Your task to perform on an android device: Open the stopwatch Image 0: 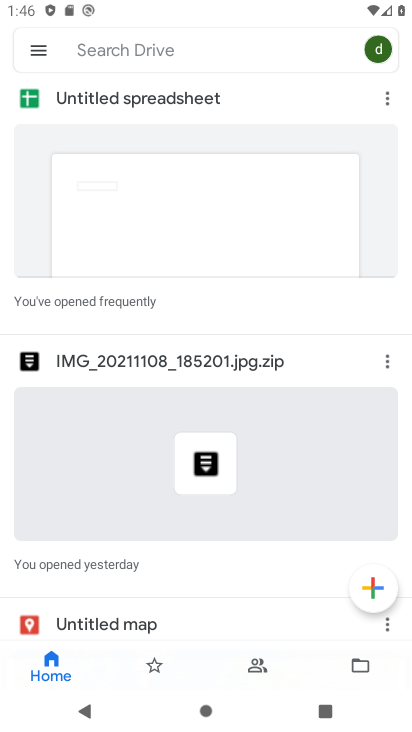
Step 0: press home button
Your task to perform on an android device: Open the stopwatch Image 1: 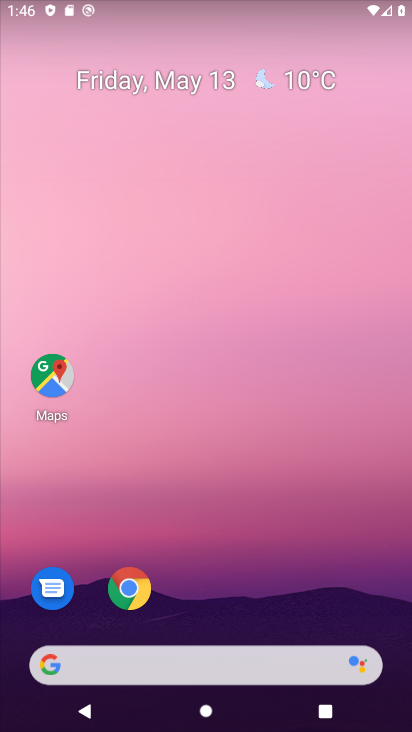
Step 1: drag from (203, 166) to (217, 78)
Your task to perform on an android device: Open the stopwatch Image 2: 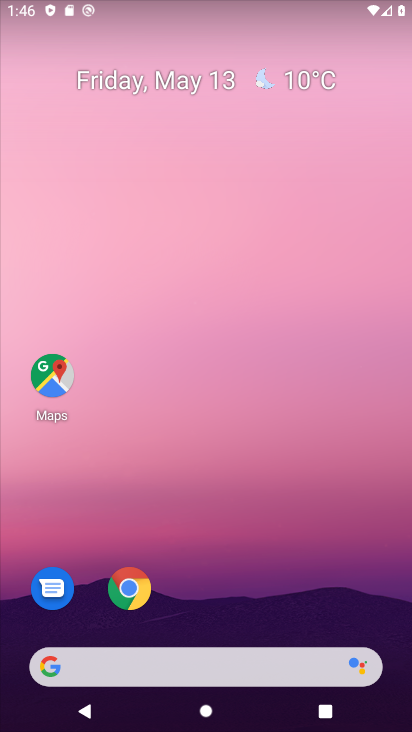
Step 2: drag from (223, 510) to (236, 114)
Your task to perform on an android device: Open the stopwatch Image 3: 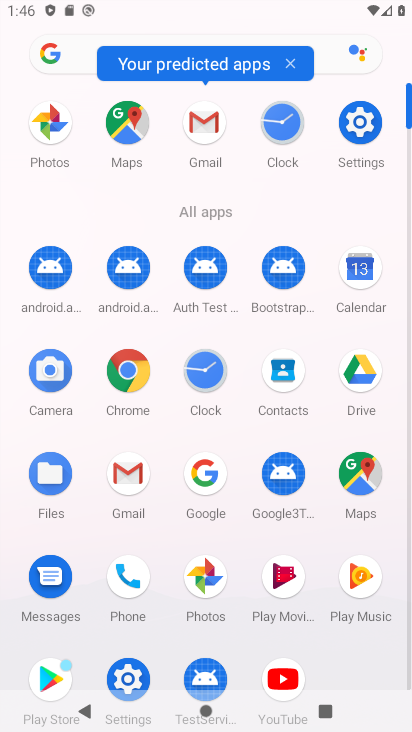
Step 3: click (202, 375)
Your task to perform on an android device: Open the stopwatch Image 4: 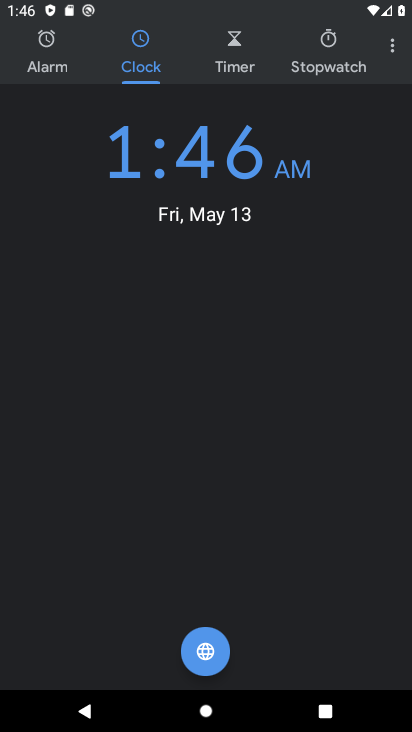
Step 4: click (334, 51)
Your task to perform on an android device: Open the stopwatch Image 5: 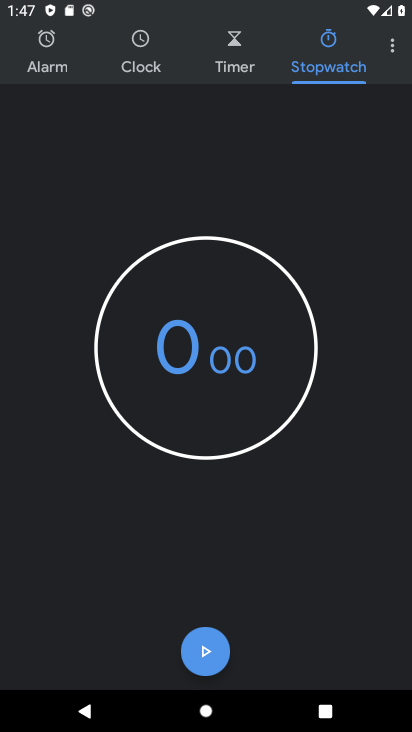
Step 5: task complete